Your task to perform on an android device: turn on data saver in the chrome app Image 0: 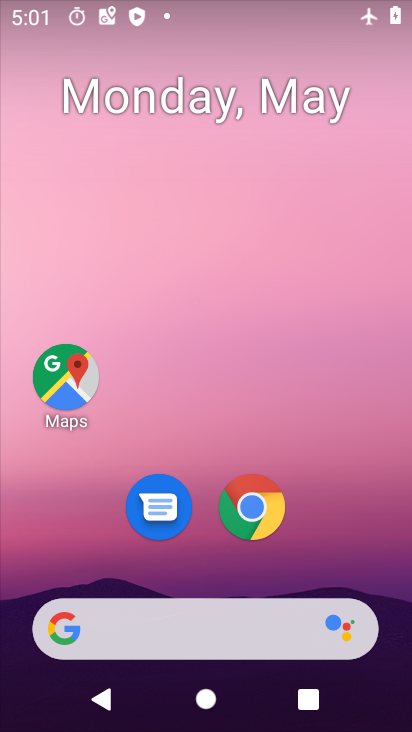
Step 0: drag from (364, 524) to (371, 128)
Your task to perform on an android device: turn on data saver in the chrome app Image 1: 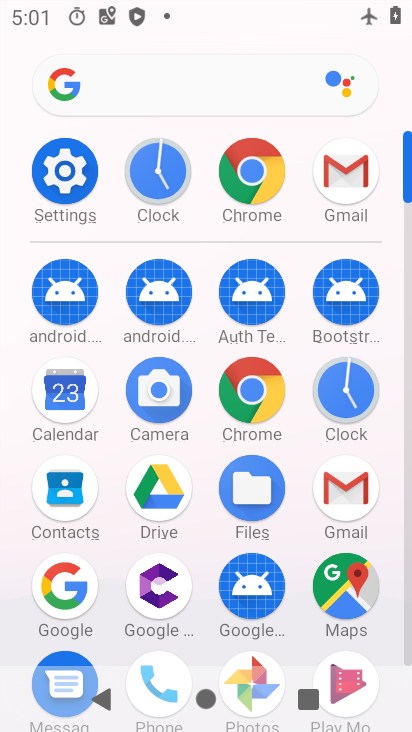
Step 1: click (264, 176)
Your task to perform on an android device: turn on data saver in the chrome app Image 2: 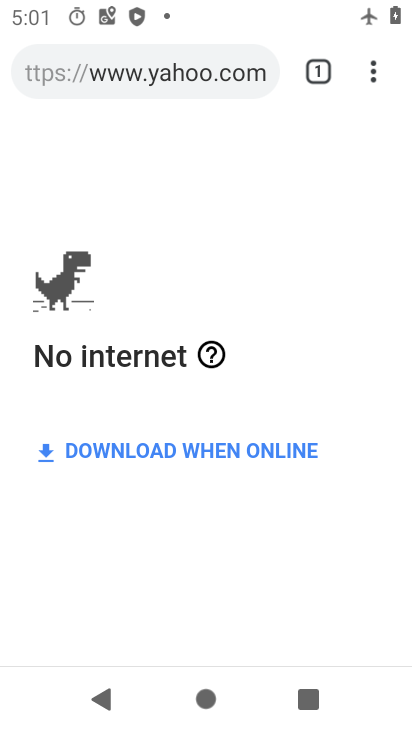
Step 2: drag from (357, 87) to (147, 502)
Your task to perform on an android device: turn on data saver in the chrome app Image 3: 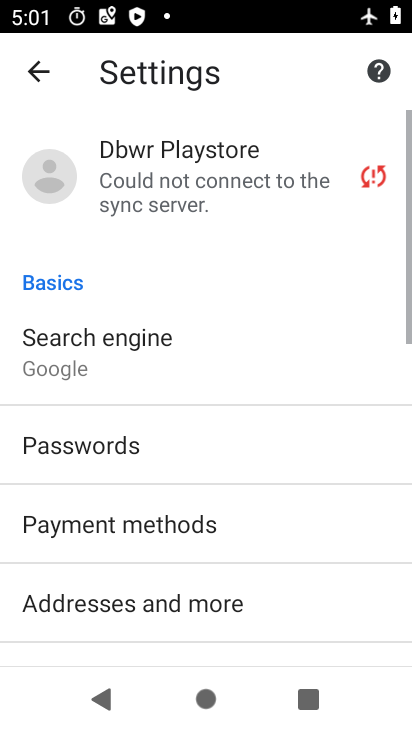
Step 3: drag from (189, 556) to (158, 315)
Your task to perform on an android device: turn on data saver in the chrome app Image 4: 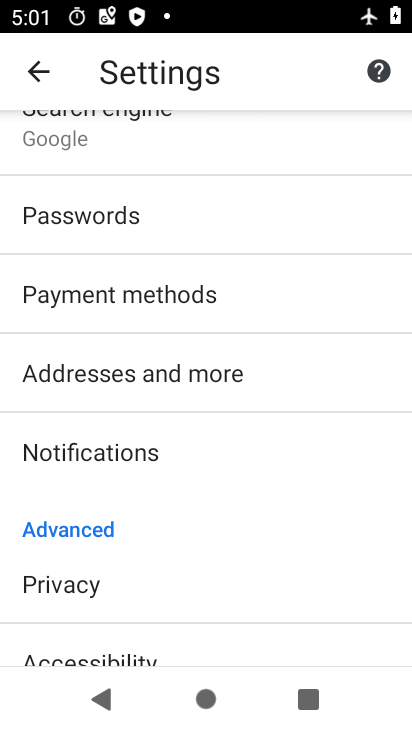
Step 4: drag from (157, 576) to (156, 112)
Your task to perform on an android device: turn on data saver in the chrome app Image 5: 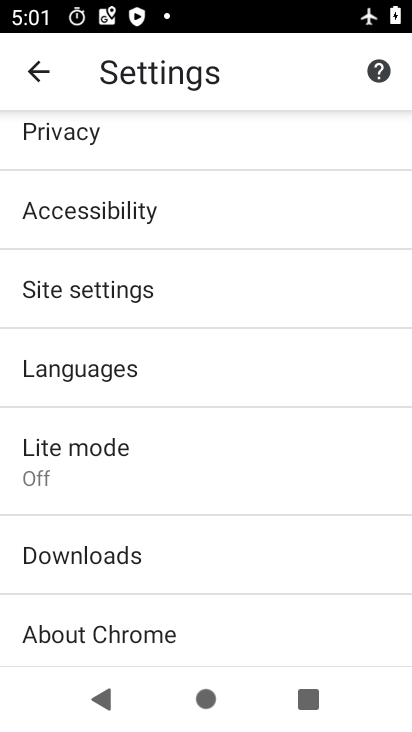
Step 5: click (152, 479)
Your task to perform on an android device: turn on data saver in the chrome app Image 6: 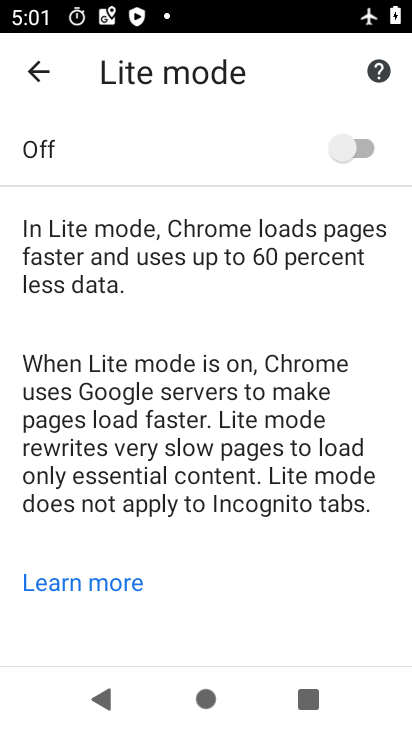
Step 6: click (339, 154)
Your task to perform on an android device: turn on data saver in the chrome app Image 7: 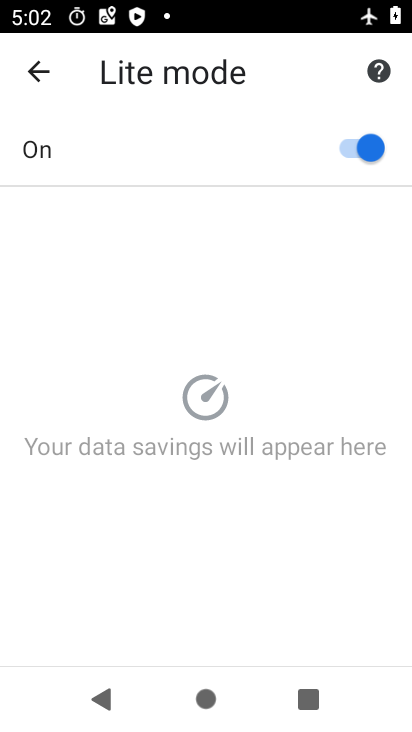
Step 7: task complete